Your task to perform on an android device: clear history in the chrome app Image 0: 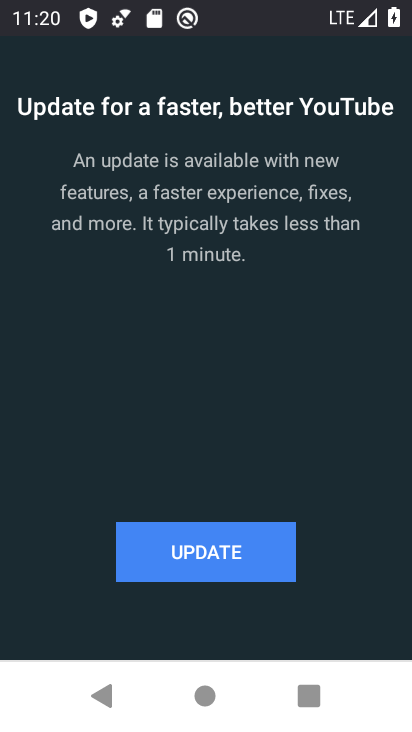
Step 0: press home button
Your task to perform on an android device: clear history in the chrome app Image 1: 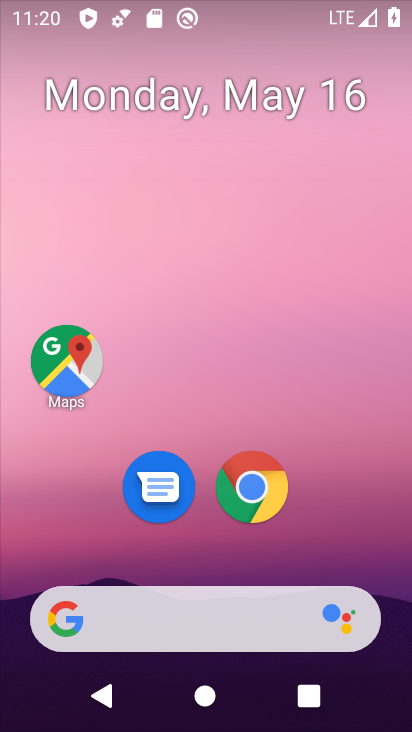
Step 1: click (269, 480)
Your task to perform on an android device: clear history in the chrome app Image 2: 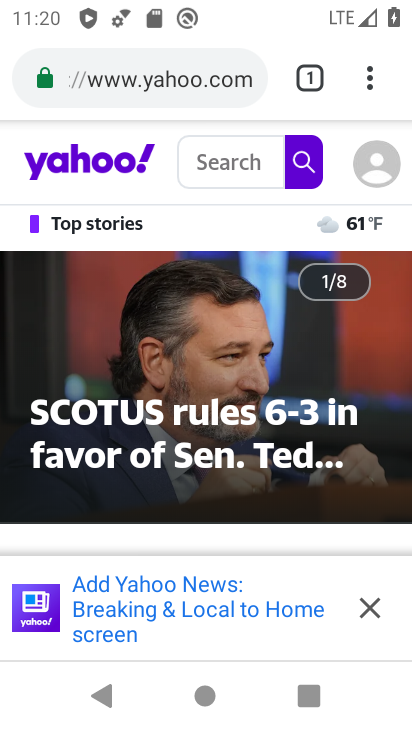
Step 2: click (366, 74)
Your task to perform on an android device: clear history in the chrome app Image 3: 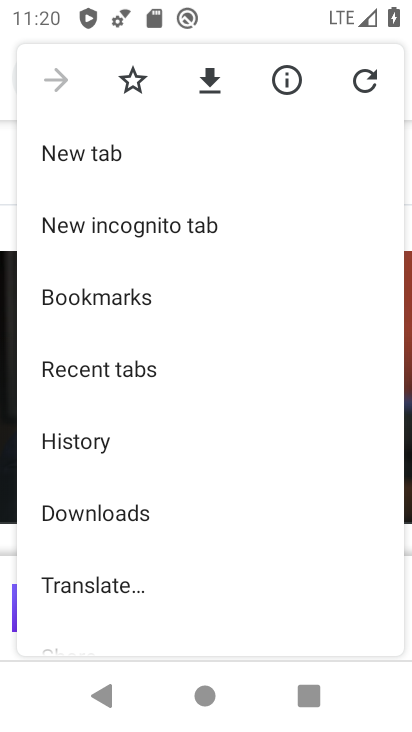
Step 3: drag from (31, 580) to (241, 207)
Your task to perform on an android device: clear history in the chrome app Image 4: 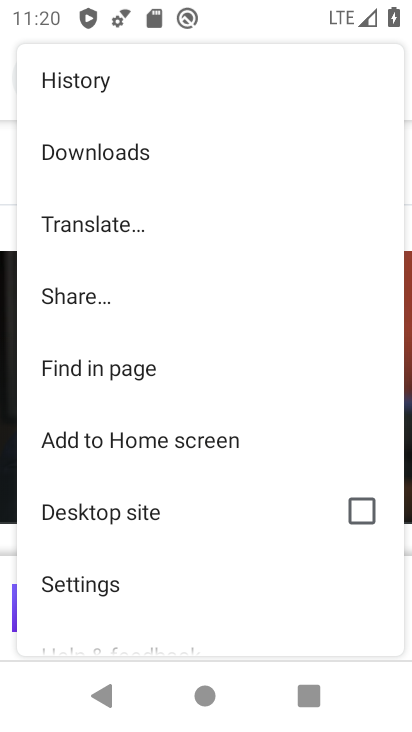
Step 4: click (53, 593)
Your task to perform on an android device: clear history in the chrome app Image 5: 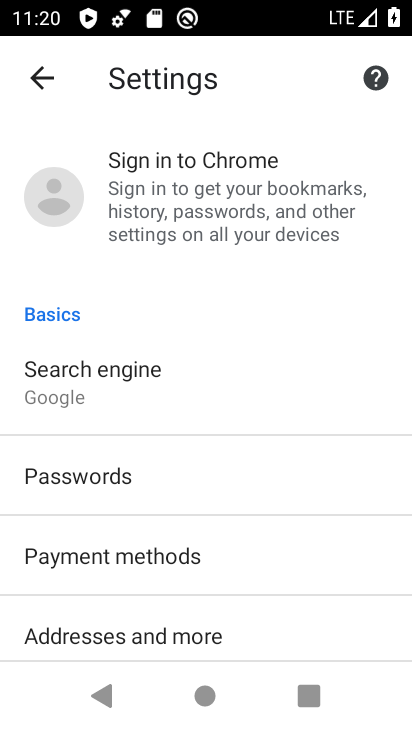
Step 5: drag from (28, 508) to (159, 238)
Your task to perform on an android device: clear history in the chrome app Image 6: 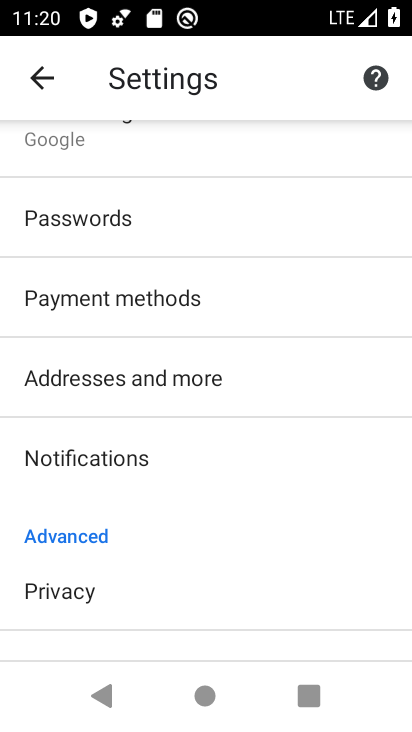
Step 6: click (66, 580)
Your task to perform on an android device: clear history in the chrome app Image 7: 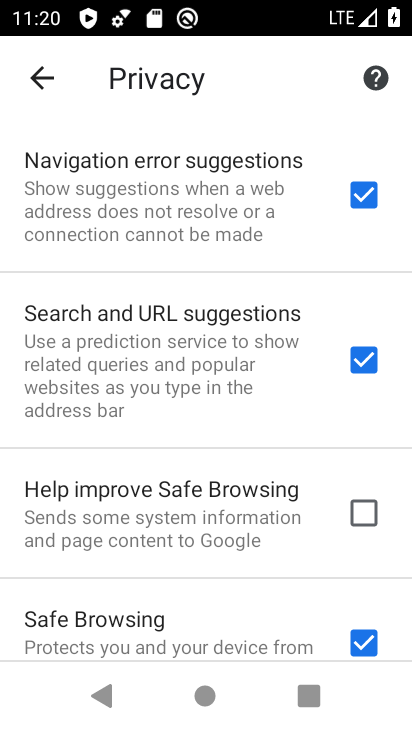
Step 7: drag from (22, 544) to (245, 200)
Your task to perform on an android device: clear history in the chrome app Image 8: 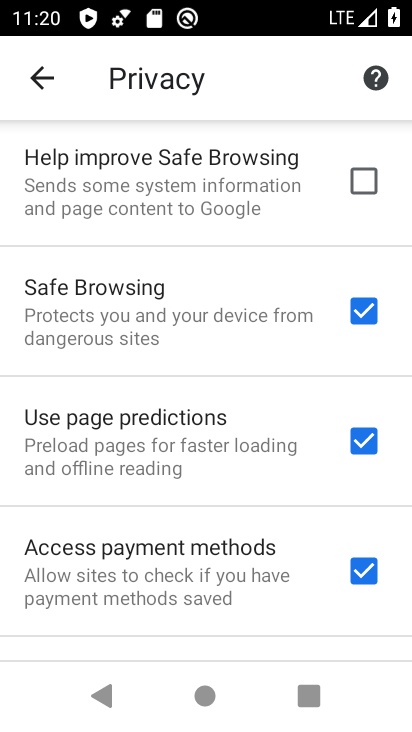
Step 8: drag from (32, 589) to (305, 251)
Your task to perform on an android device: clear history in the chrome app Image 9: 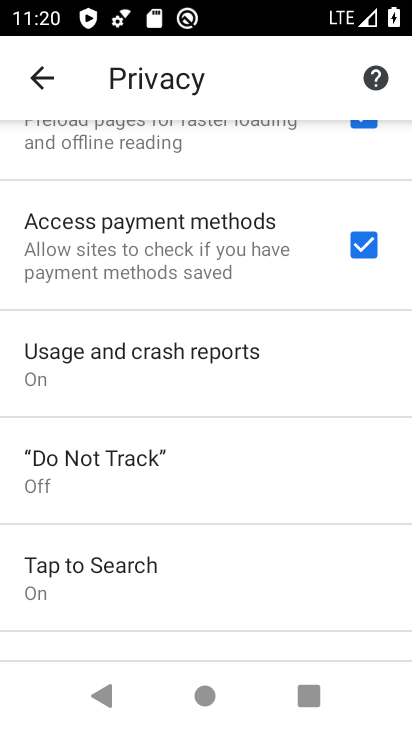
Step 9: drag from (18, 603) to (239, 256)
Your task to perform on an android device: clear history in the chrome app Image 10: 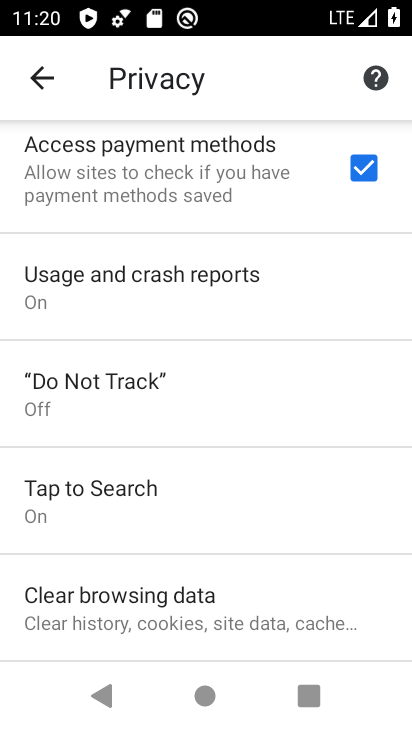
Step 10: click (98, 611)
Your task to perform on an android device: clear history in the chrome app Image 11: 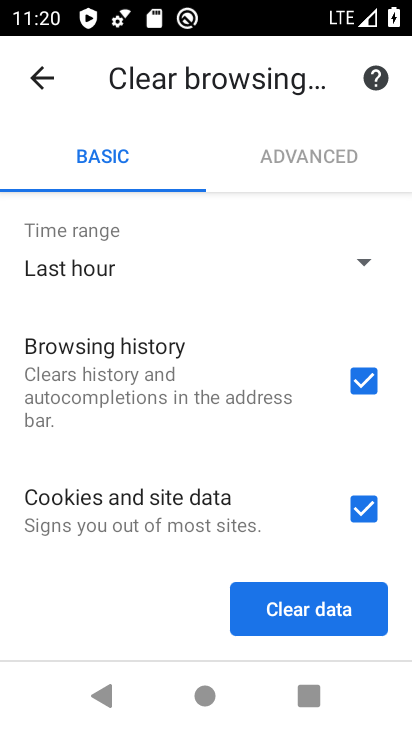
Step 11: click (302, 620)
Your task to perform on an android device: clear history in the chrome app Image 12: 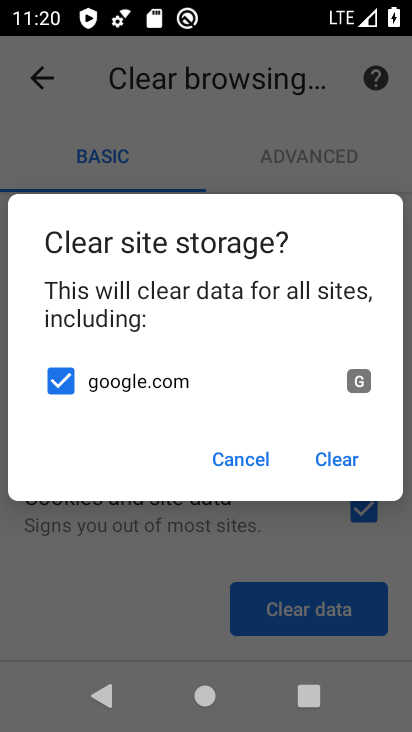
Step 12: click (335, 455)
Your task to perform on an android device: clear history in the chrome app Image 13: 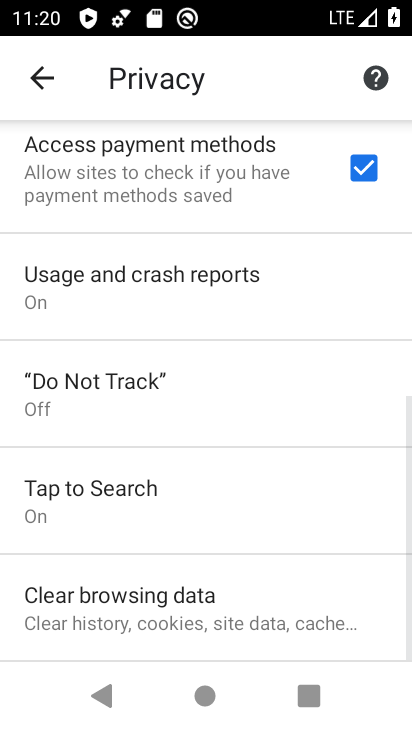
Step 13: task complete